Your task to perform on an android device: delete location history Image 0: 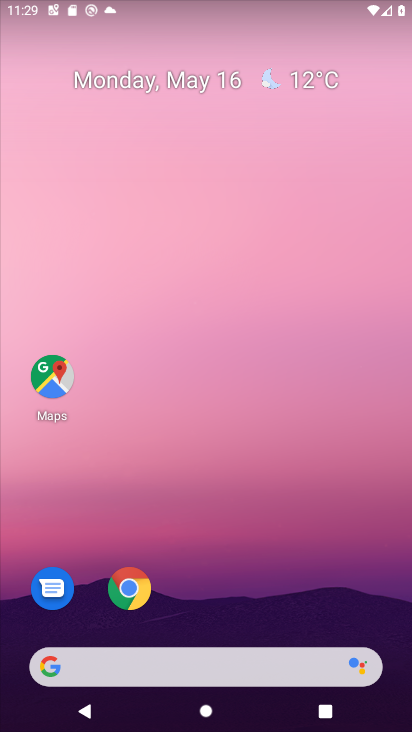
Step 0: drag from (217, 624) to (222, 25)
Your task to perform on an android device: delete location history Image 1: 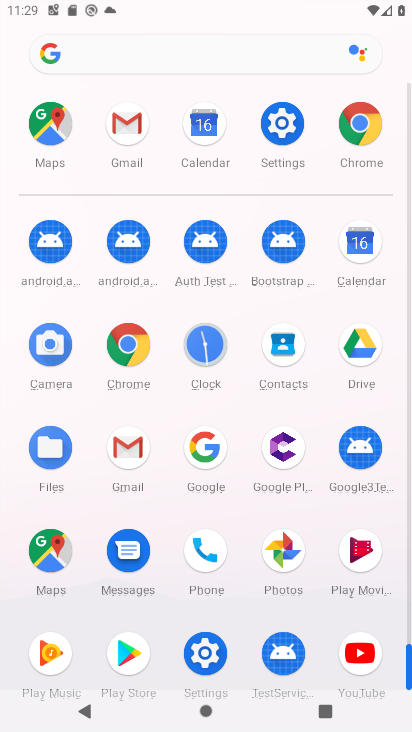
Step 1: click (39, 551)
Your task to perform on an android device: delete location history Image 2: 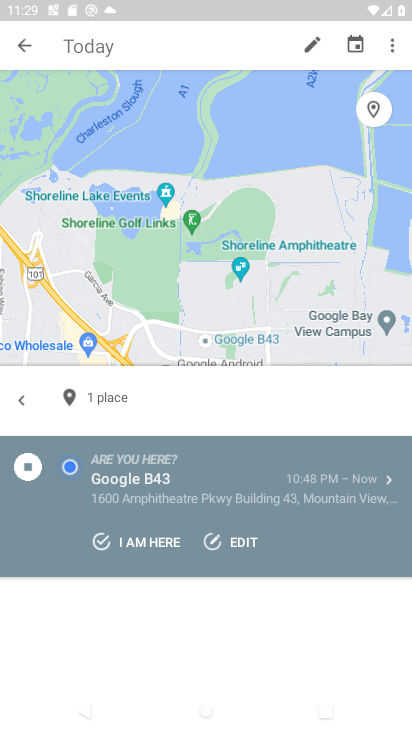
Step 2: click (389, 35)
Your task to perform on an android device: delete location history Image 3: 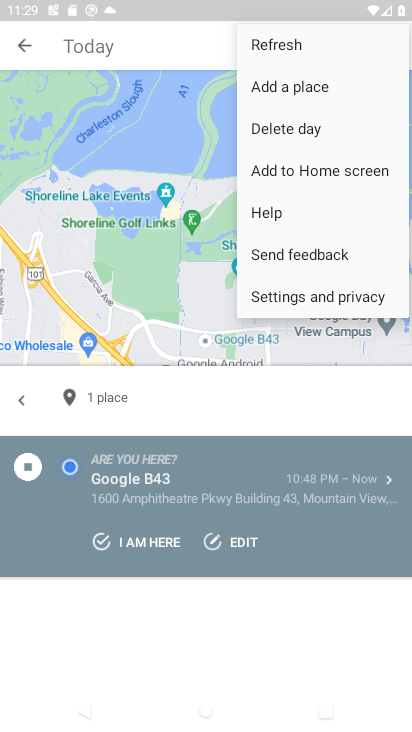
Step 3: click (303, 293)
Your task to perform on an android device: delete location history Image 4: 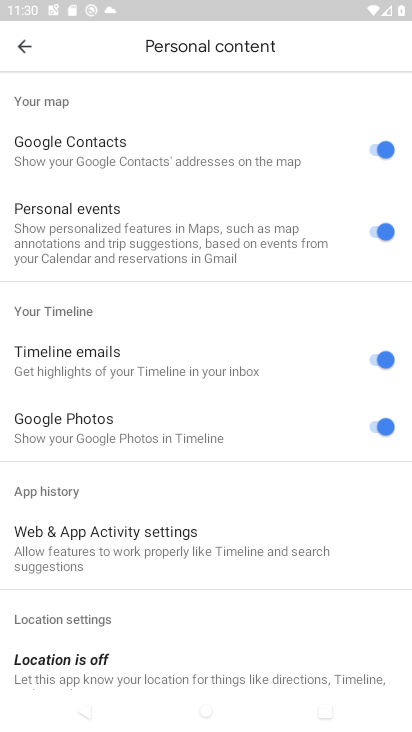
Step 4: drag from (191, 622) to (205, 181)
Your task to perform on an android device: delete location history Image 5: 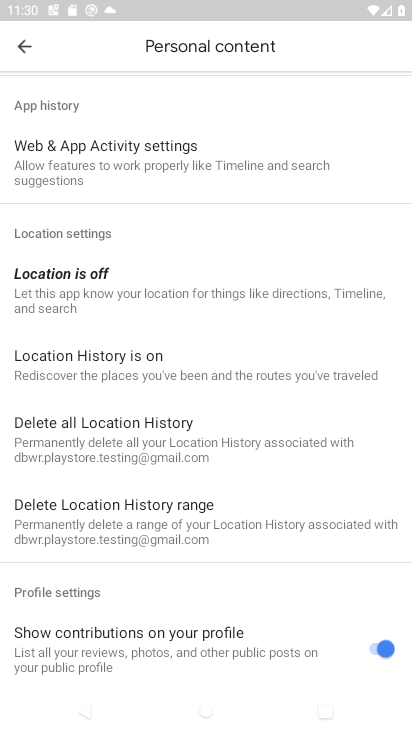
Step 5: click (203, 424)
Your task to perform on an android device: delete location history Image 6: 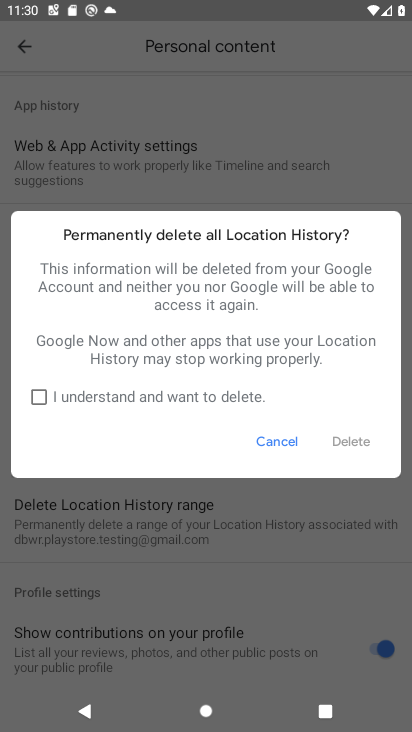
Step 6: click (36, 395)
Your task to perform on an android device: delete location history Image 7: 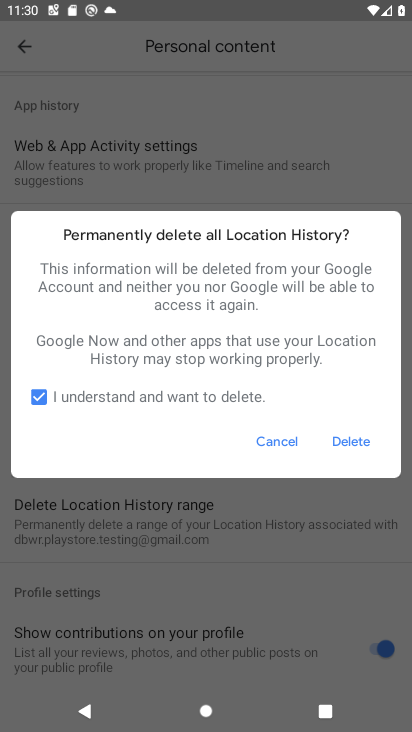
Step 7: click (351, 442)
Your task to perform on an android device: delete location history Image 8: 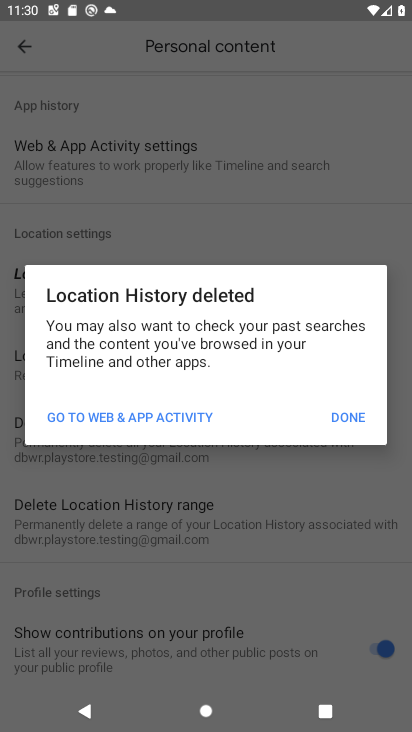
Step 8: click (345, 417)
Your task to perform on an android device: delete location history Image 9: 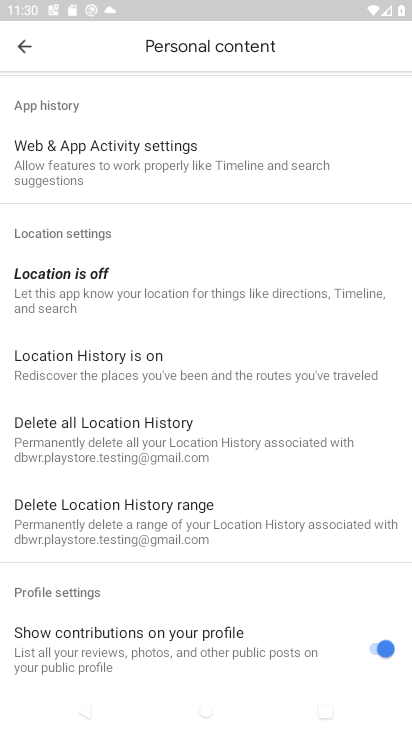
Step 9: task complete